Your task to perform on an android device: Open internet settings Image 0: 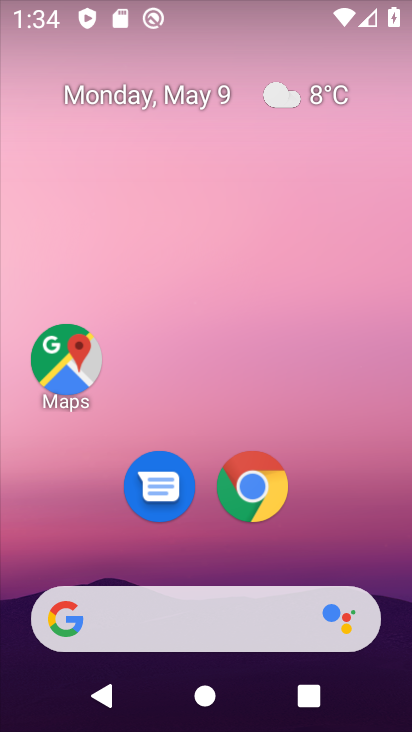
Step 0: drag from (184, 523) to (75, 6)
Your task to perform on an android device: Open internet settings Image 1: 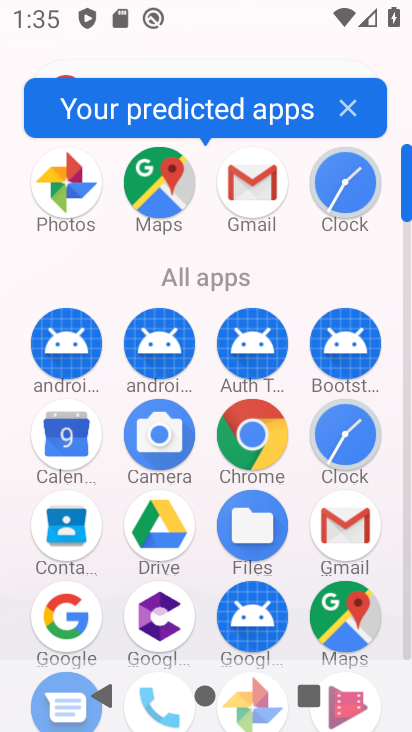
Step 1: drag from (288, 548) to (299, 236)
Your task to perform on an android device: Open internet settings Image 2: 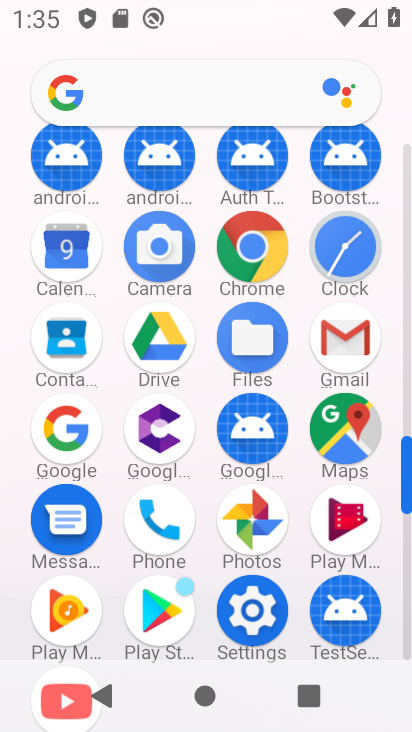
Step 2: click (249, 599)
Your task to perform on an android device: Open internet settings Image 3: 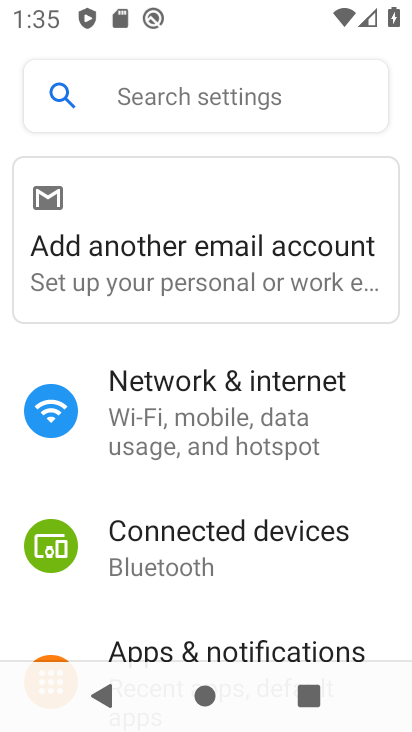
Step 3: click (244, 425)
Your task to perform on an android device: Open internet settings Image 4: 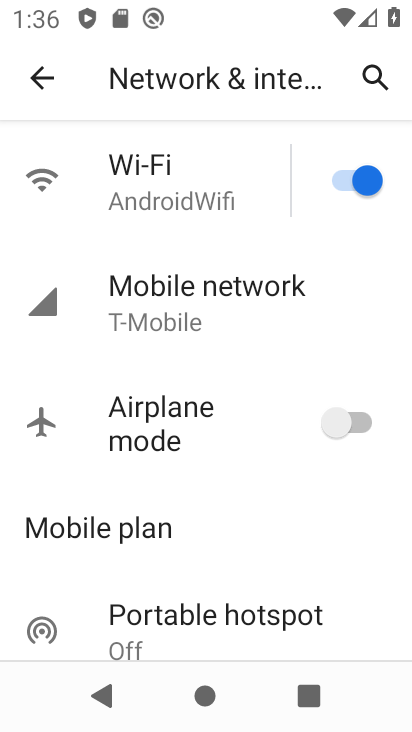
Step 4: task complete